Your task to perform on an android device: toggle improve location accuracy Image 0: 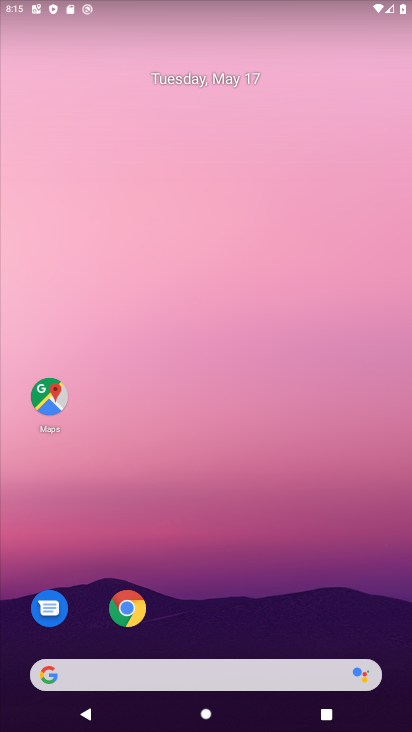
Step 0: drag from (256, 621) to (404, 61)
Your task to perform on an android device: toggle improve location accuracy Image 1: 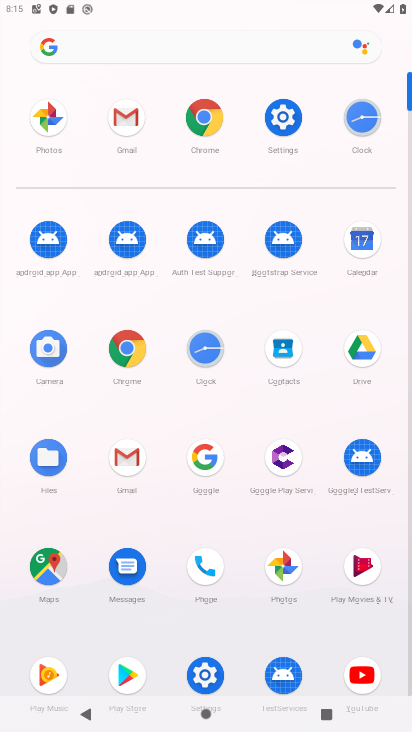
Step 1: click (281, 178)
Your task to perform on an android device: toggle improve location accuracy Image 2: 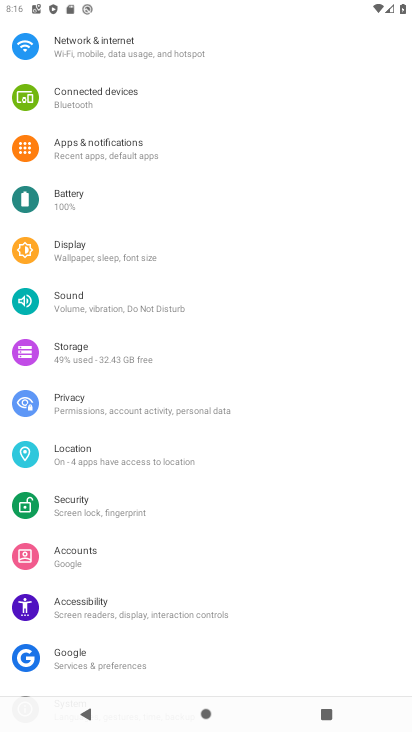
Step 2: click (124, 451)
Your task to perform on an android device: toggle improve location accuracy Image 3: 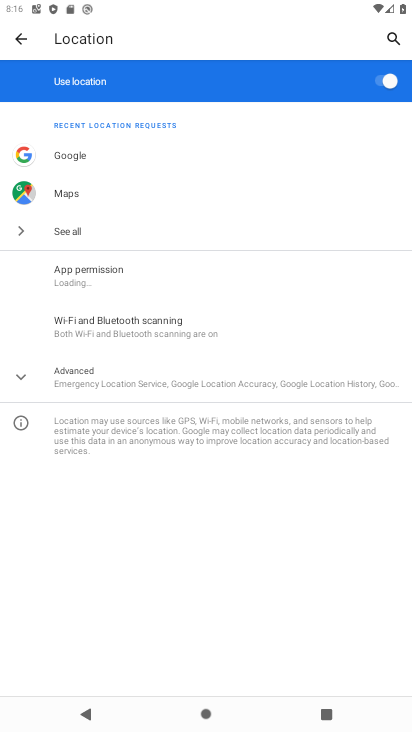
Step 3: click (115, 386)
Your task to perform on an android device: toggle improve location accuracy Image 4: 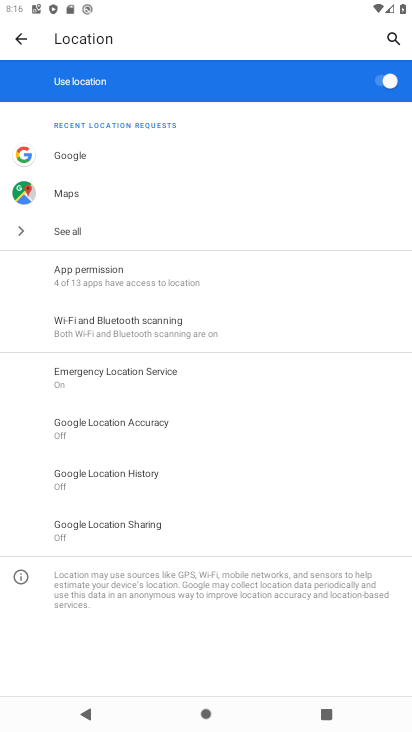
Step 4: click (111, 421)
Your task to perform on an android device: toggle improve location accuracy Image 5: 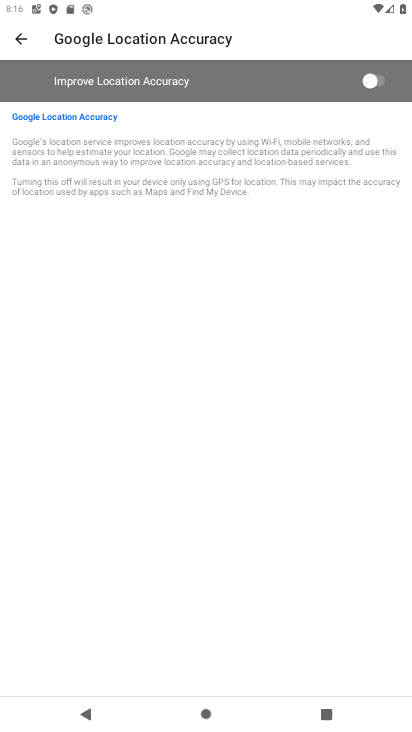
Step 5: click (387, 81)
Your task to perform on an android device: toggle improve location accuracy Image 6: 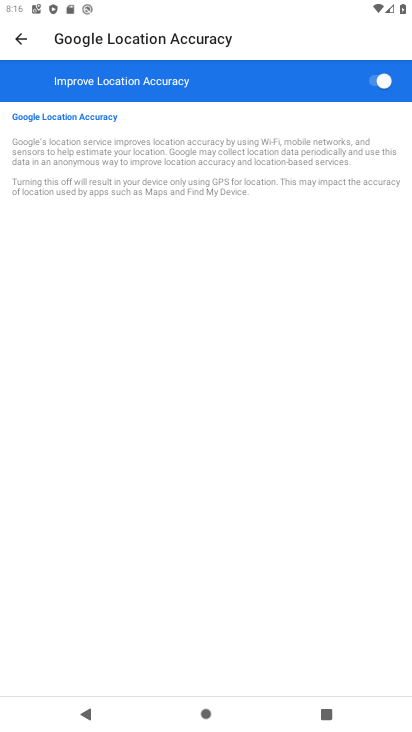
Step 6: click (387, 81)
Your task to perform on an android device: toggle improve location accuracy Image 7: 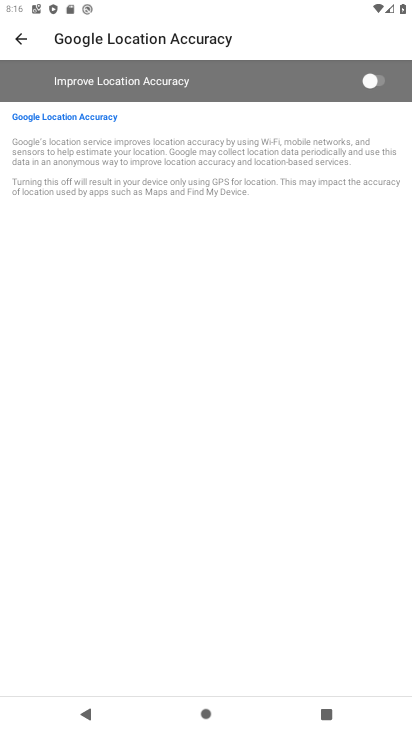
Step 7: click (387, 81)
Your task to perform on an android device: toggle improve location accuracy Image 8: 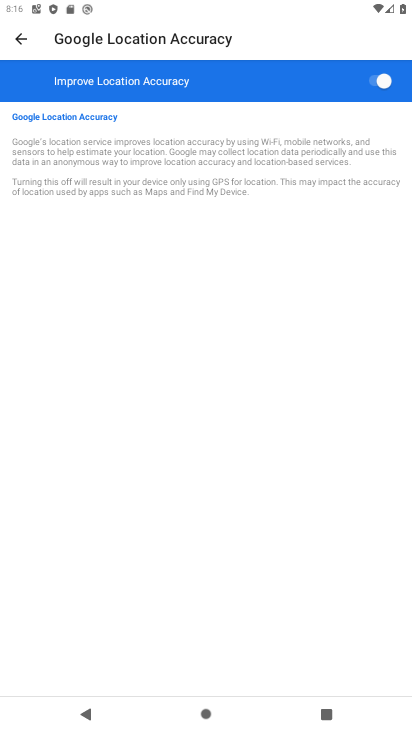
Step 8: task complete